Your task to perform on an android device: open app "eBay: The shopping marketplace" Image 0: 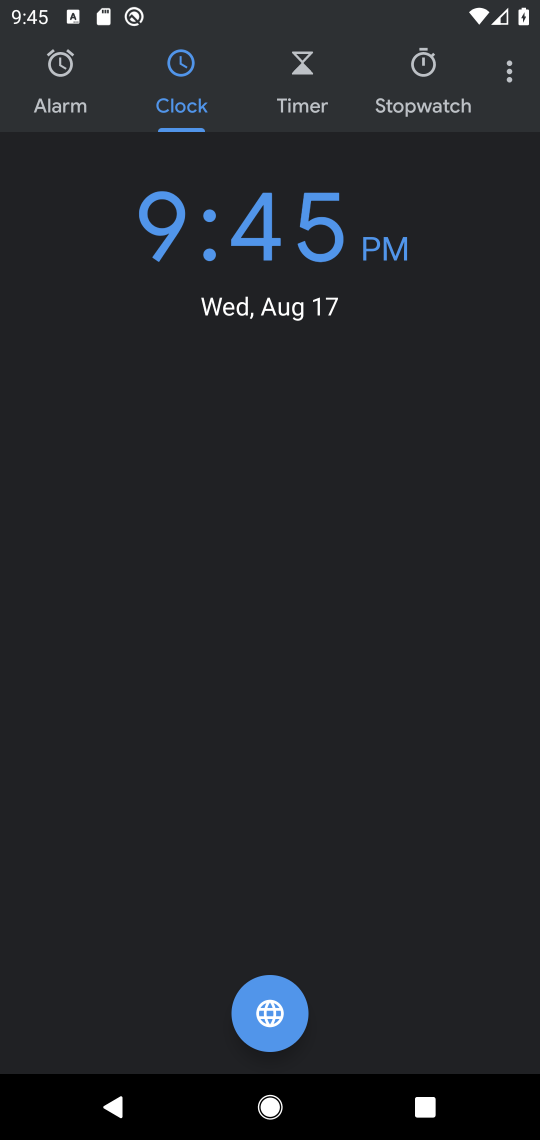
Step 0: press home button
Your task to perform on an android device: open app "eBay: The shopping marketplace" Image 1: 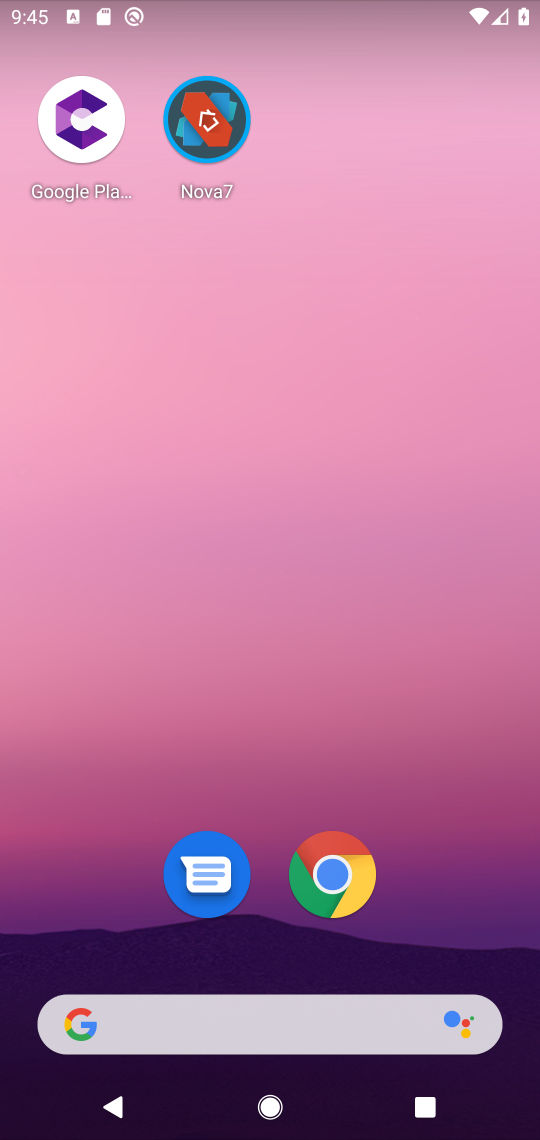
Step 1: task complete